Your task to perform on an android device: open app "File Manager" (install if not already installed) Image 0: 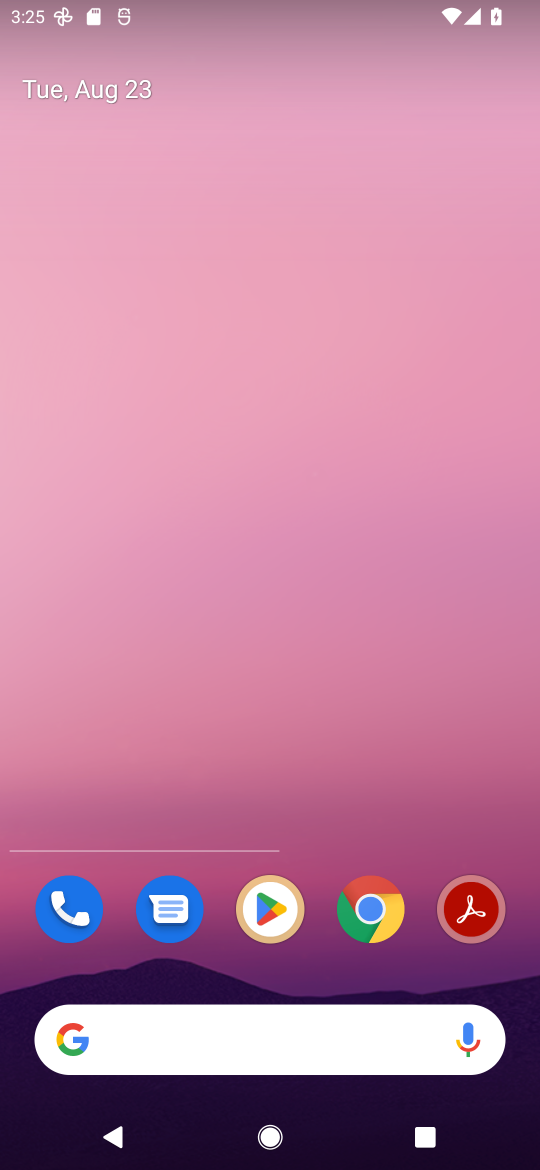
Step 0: press home button
Your task to perform on an android device: open app "File Manager" (install if not already installed) Image 1: 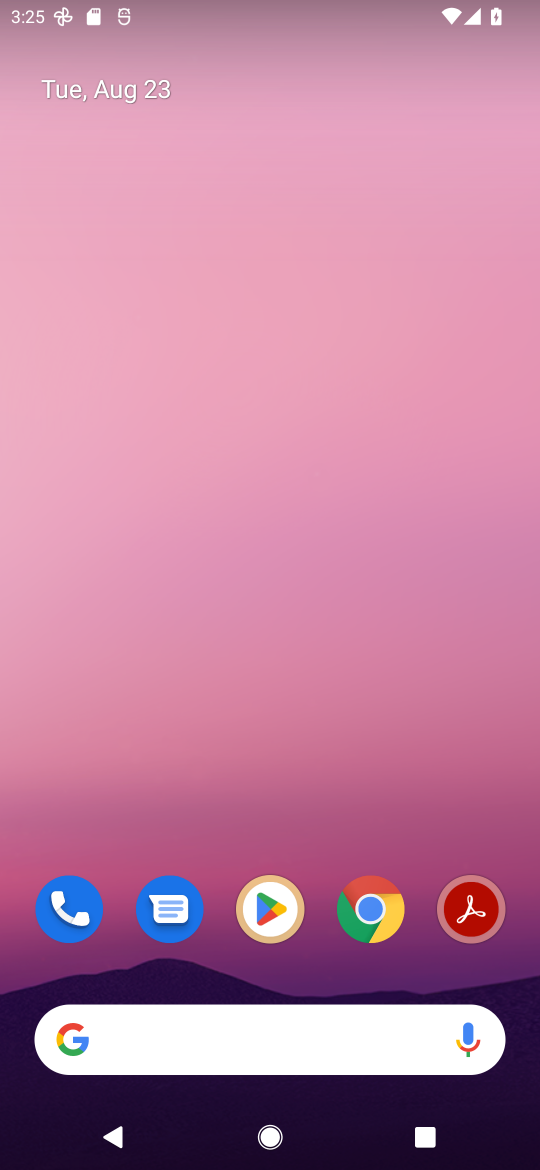
Step 1: click (265, 902)
Your task to perform on an android device: open app "File Manager" (install if not already installed) Image 2: 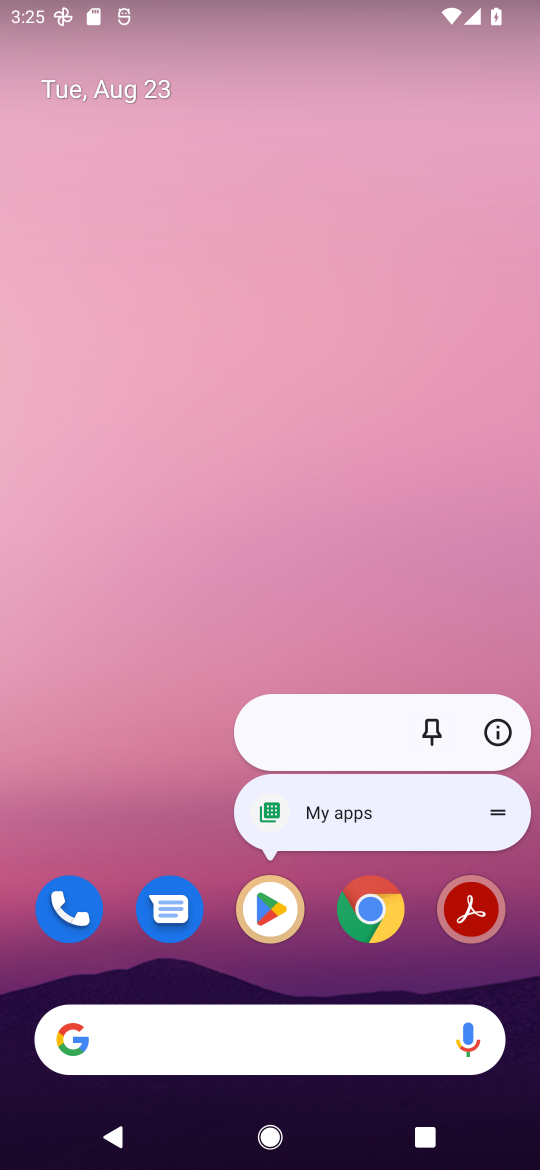
Step 2: click (258, 904)
Your task to perform on an android device: open app "File Manager" (install if not already installed) Image 3: 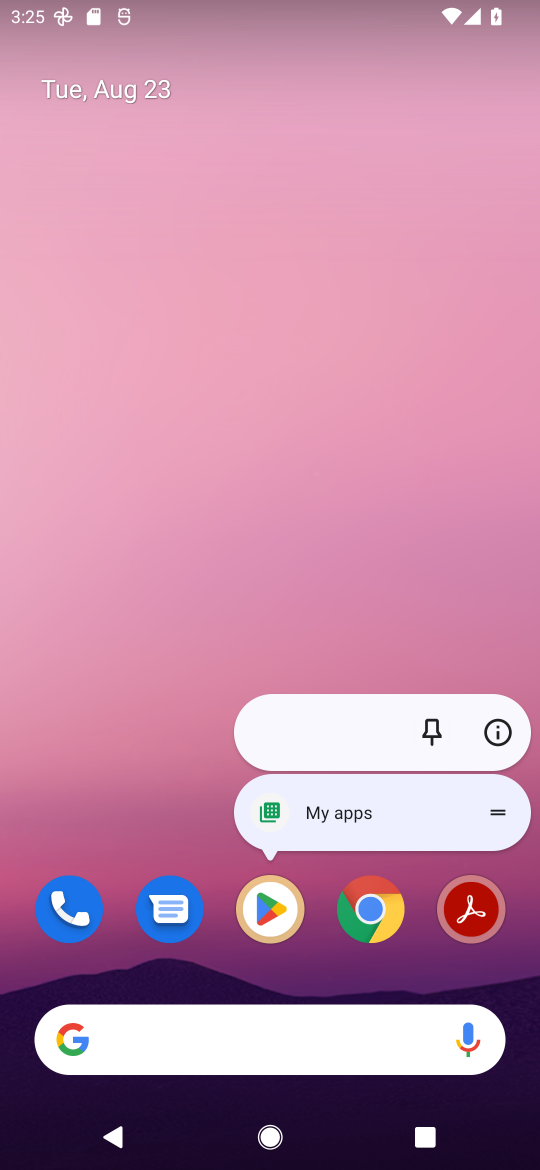
Step 3: click (265, 901)
Your task to perform on an android device: open app "File Manager" (install if not already installed) Image 4: 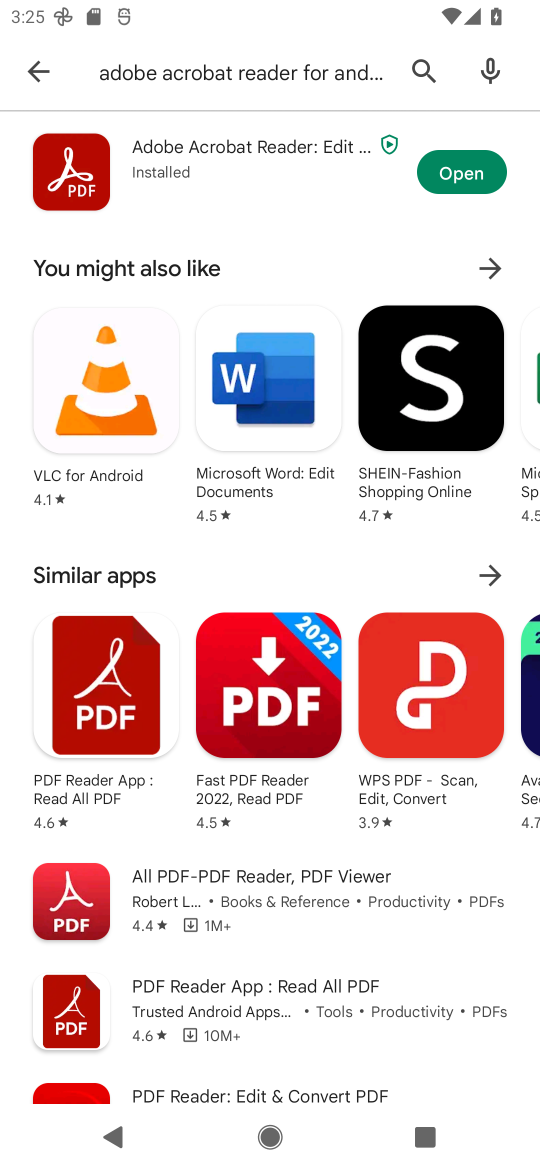
Step 4: click (416, 59)
Your task to perform on an android device: open app "File Manager" (install if not already installed) Image 5: 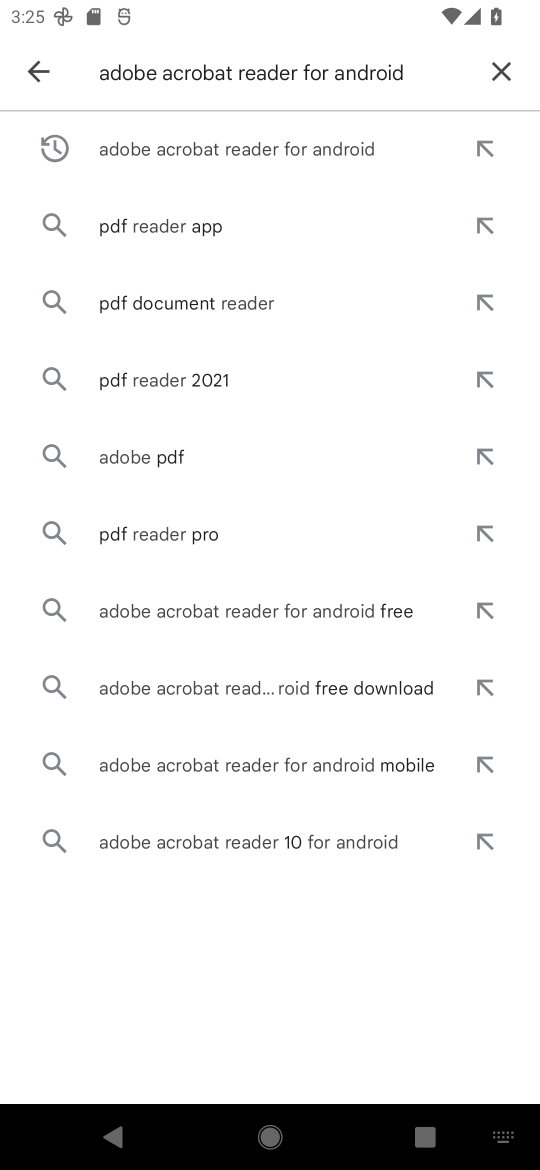
Step 5: click (497, 67)
Your task to perform on an android device: open app "File Manager" (install if not already installed) Image 6: 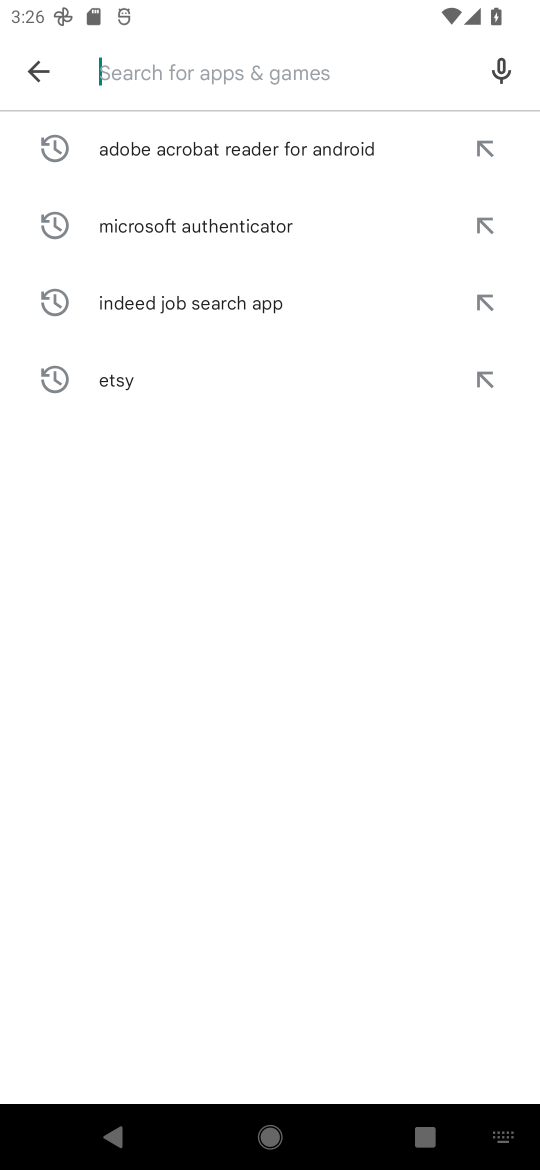
Step 6: type "File Manager"
Your task to perform on an android device: open app "File Manager" (install if not already installed) Image 7: 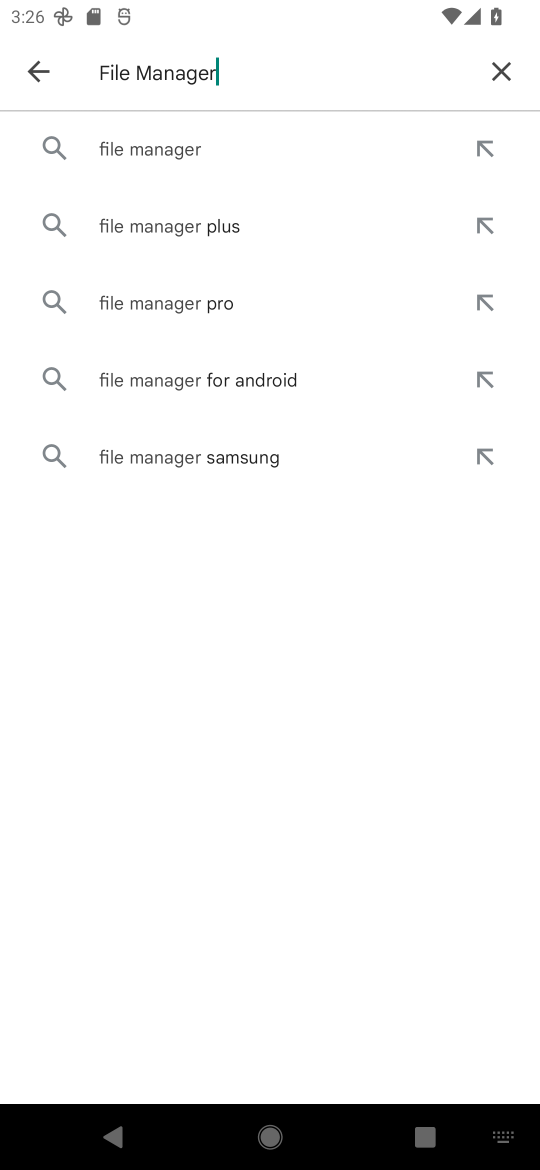
Step 7: click (203, 140)
Your task to perform on an android device: open app "File Manager" (install if not already installed) Image 8: 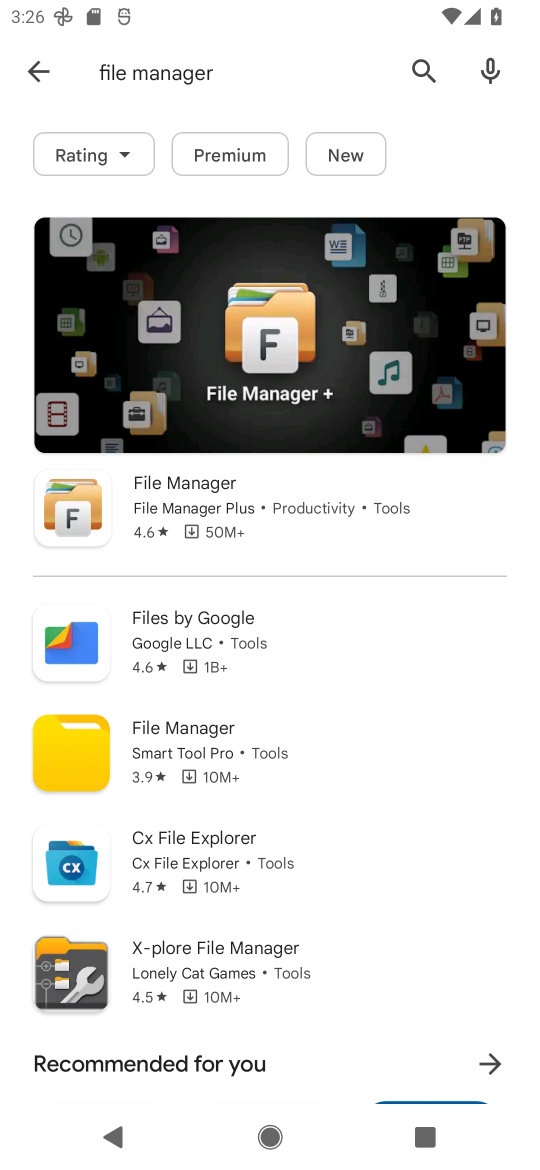
Step 8: task complete